Your task to perform on an android device: turn off airplane mode Image 0: 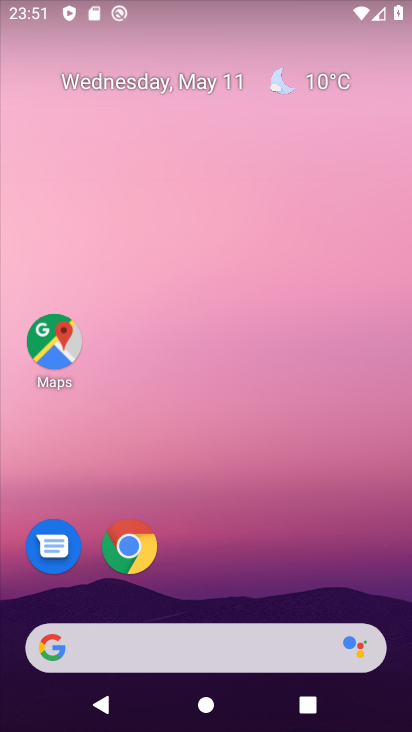
Step 0: drag from (232, 613) to (256, 250)
Your task to perform on an android device: turn off airplane mode Image 1: 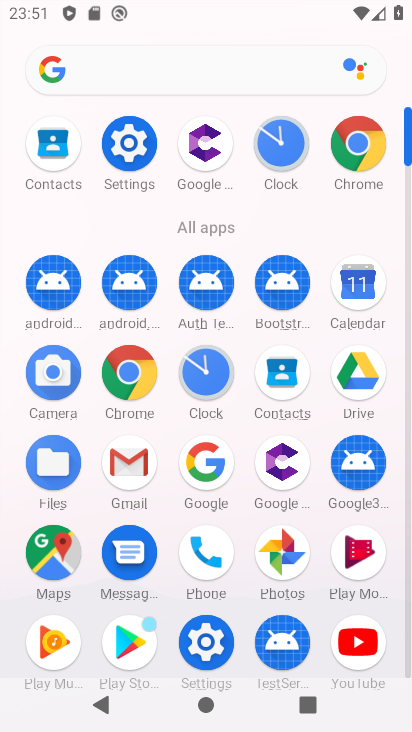
Step 1: click (127, 147)
Your task to perform on an android device: turn off airplane mode Image 2: 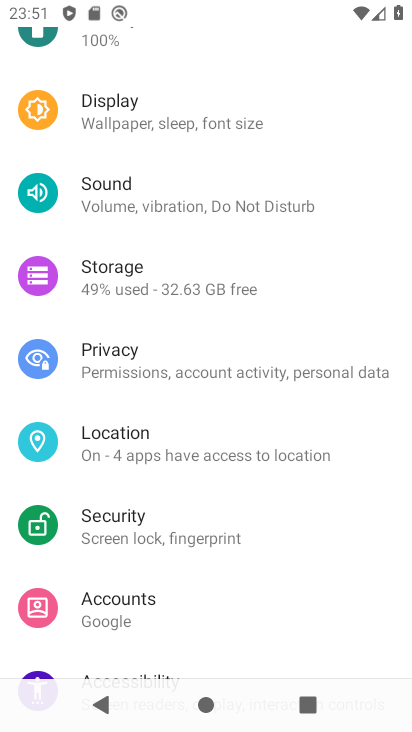
Step 2: drag from (311, 111) to (307, 562)
Your task to perform on an android device: turn off airplane mode Image 3: 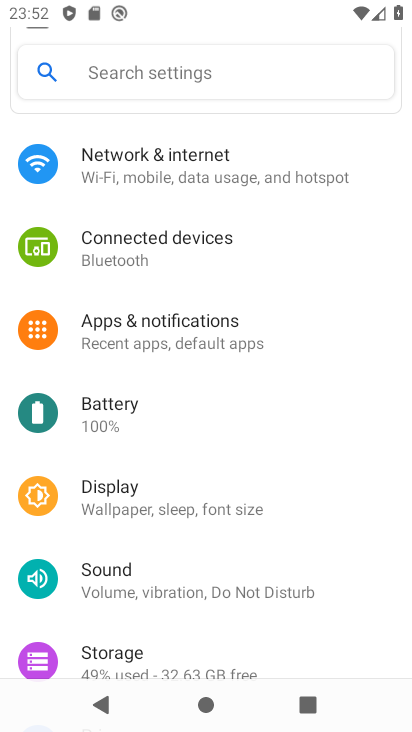
Step 3: click (219, 174)
Your task to perform on an android device: turn off airplane mode Image 4: 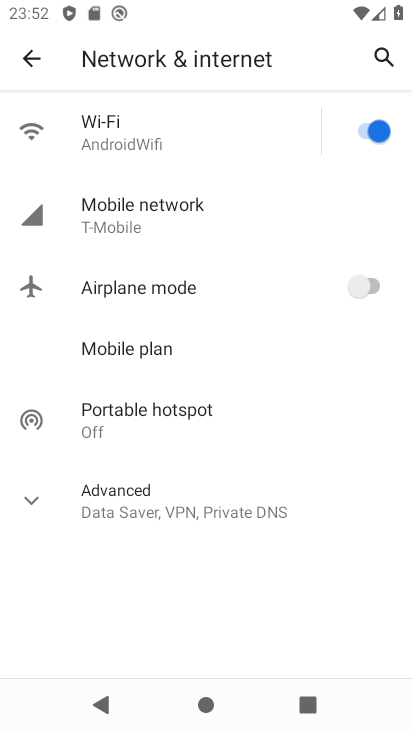
Step 4: task complete